Your task to perform on an android device: stop showing notifications on the lock screen Image 0: 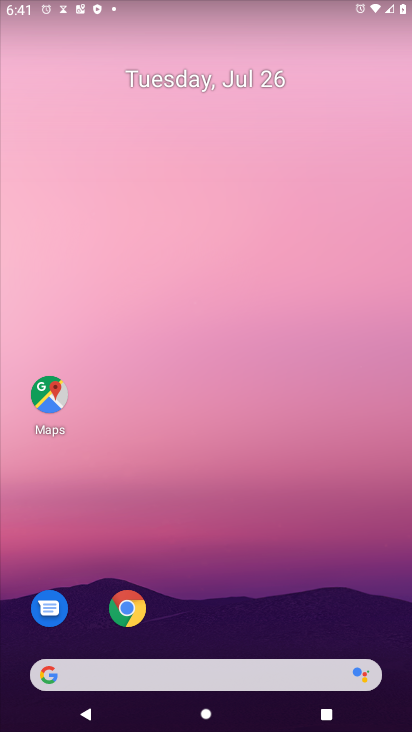
Step 0: press home button
Your task to perform on an android device: stop showing notifications on the lock screen Image 1: 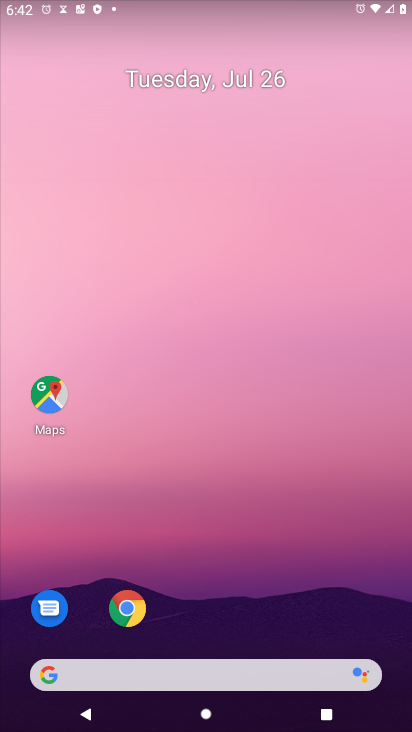
Step 1: drag from (242, 627) to (298, 72)
Your task to perform on an android device: stop showing notifications on the lock screen Image 2: 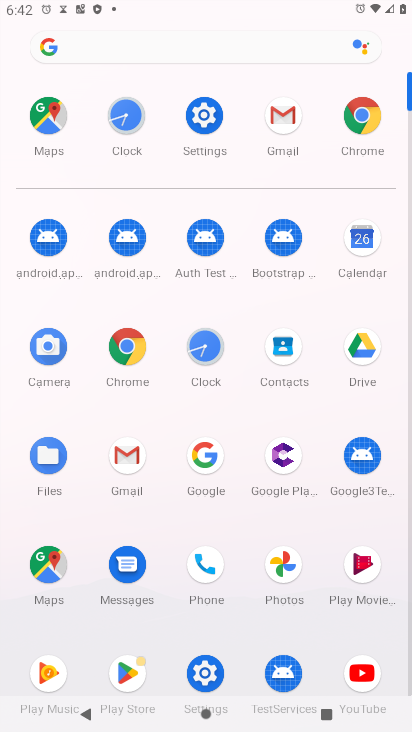
Step 2: click (218, 131)
Your task to perform on an android device: stop showing notifications on the lock screen Image 3: 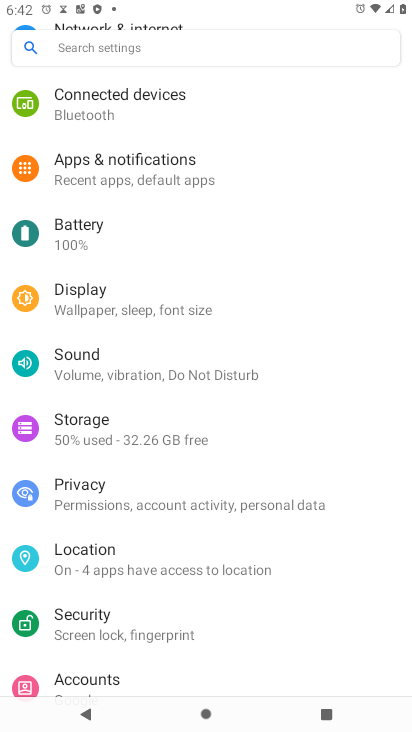
Step 3: click (131, 159)
Your task to perform on an android device: stop showing notifications on the lock screen Image 4: 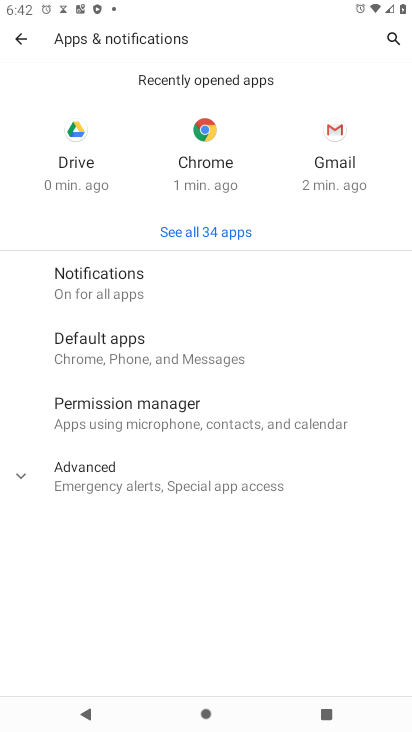
Step 4: click (124, 297)
Your task to perform on an android device: stop showing notifications on the lock screen Image 5: 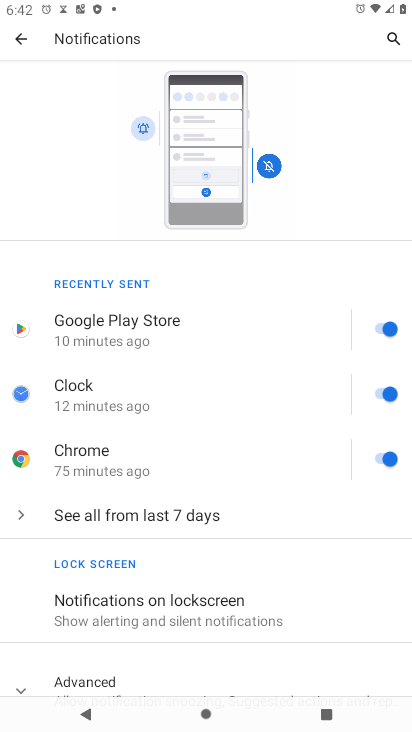
Step 5: click (108, 601)
Your task to perform on an android device: stop showing notifications on the lock screen Image 6: 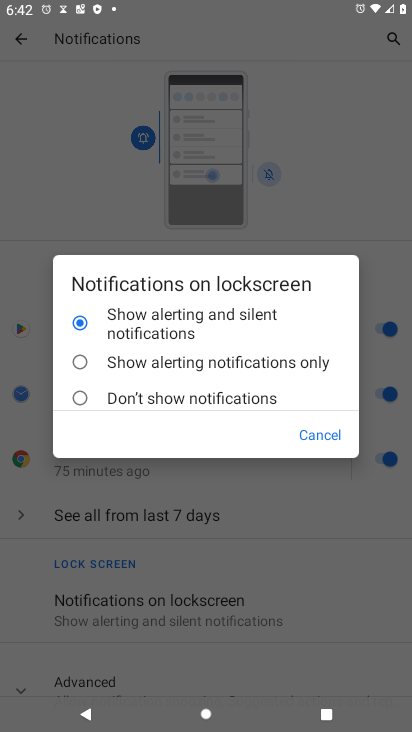
Step 6: click (71, 395)
Your task to perform on an android device: stop showing notifications on the lock screen Image 7: 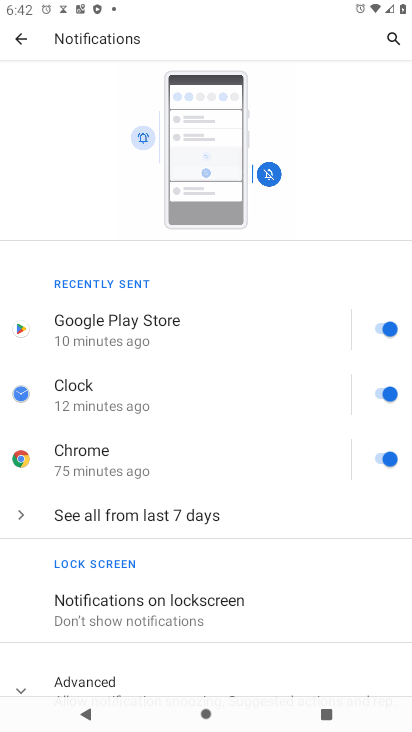
Step 7: task complete